Your task to perform on an android device: stop showing notifications on the lock screen Image 0: 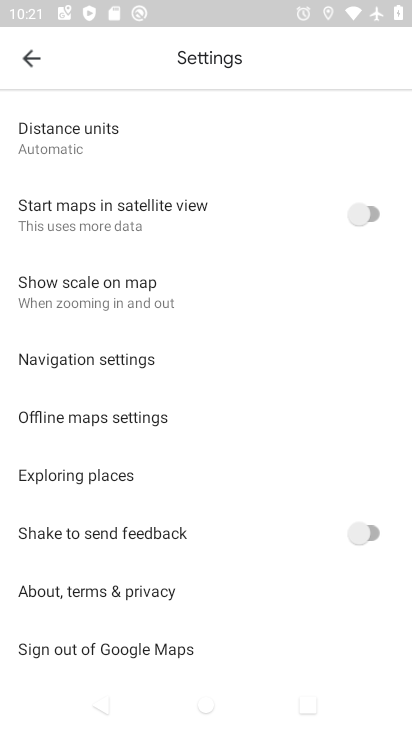
Step 0: press home button
Your task to perform on an android device: stop showing notifications on the lock screen Image 1: 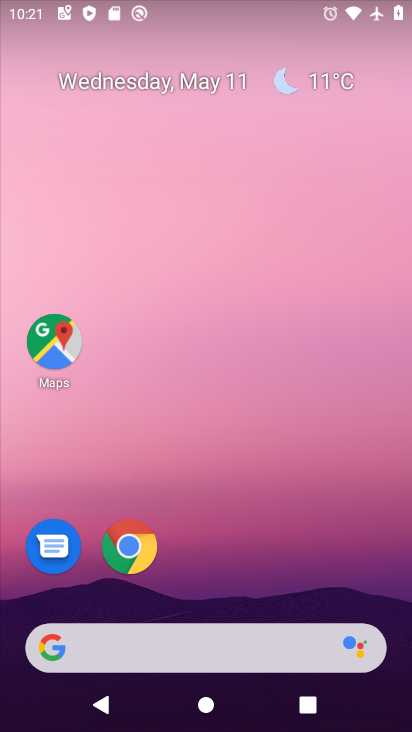
Step 1: drag from (397, 621) to (290, 122)
Your task to perform on an android device: stop showing notifications on the lock screen Image 2: 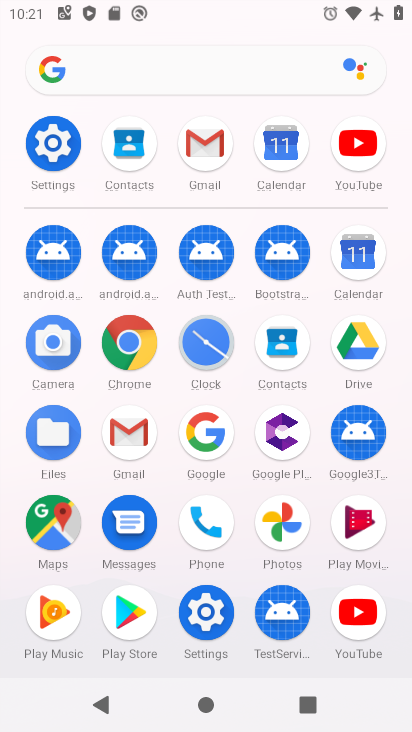
Step 2: click (208, 612)
Your task to perform on an android device: stop showing notifications on the lock screen Image 3: 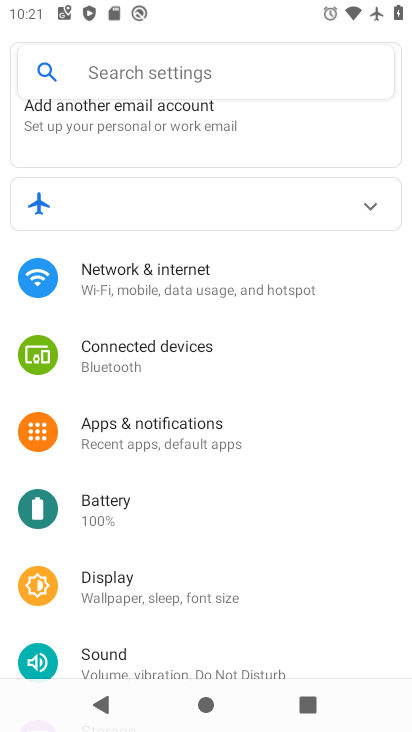
Step 3: click (146, 424)
Your task to perform on an android device: stop showing notifications on the lock screen Image 4: 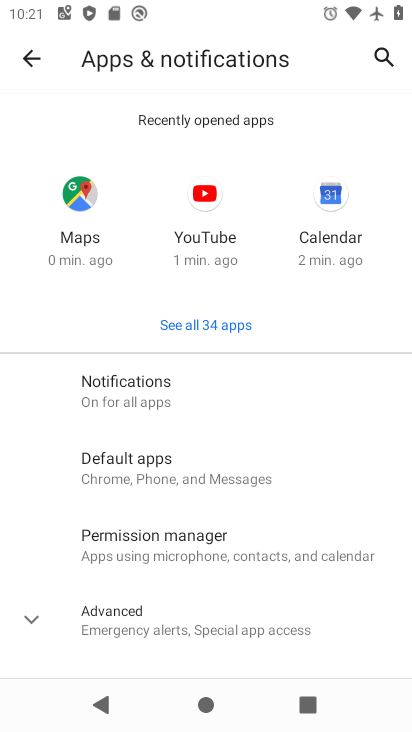
Step 4: click (125, 390)
Your task to perform on an android device: stop showing notifications on the lock screen Image 5: 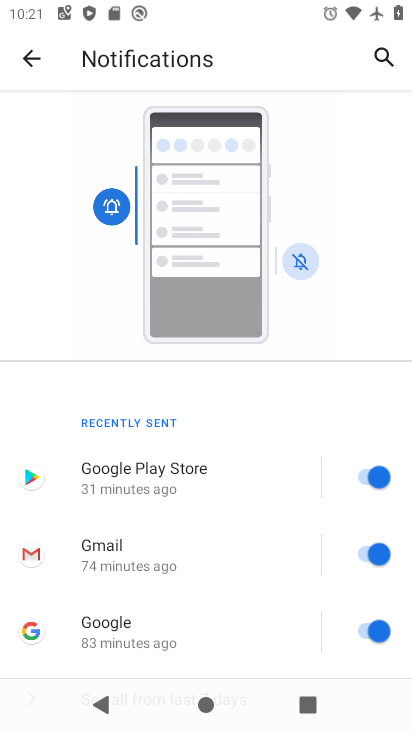
Step 5: drag from (286, 629) to (239, 185)
Your task to perform on an android device: stop showing notifications on the lock screen Image 6: 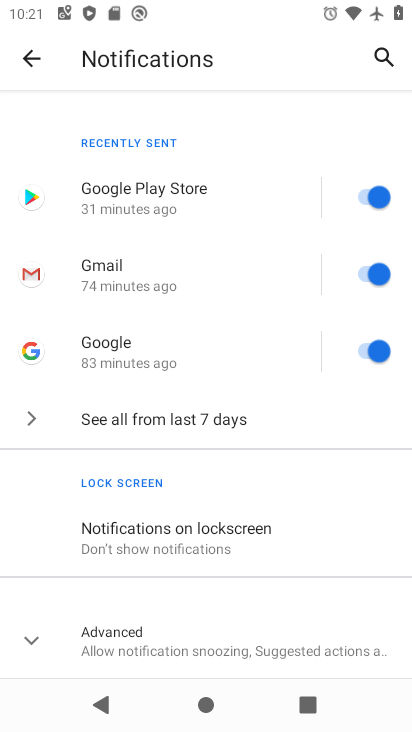
Step 6: click (133, 537)
Your task to perform on an android device: stop showing notifications on the lock screen Image 7: 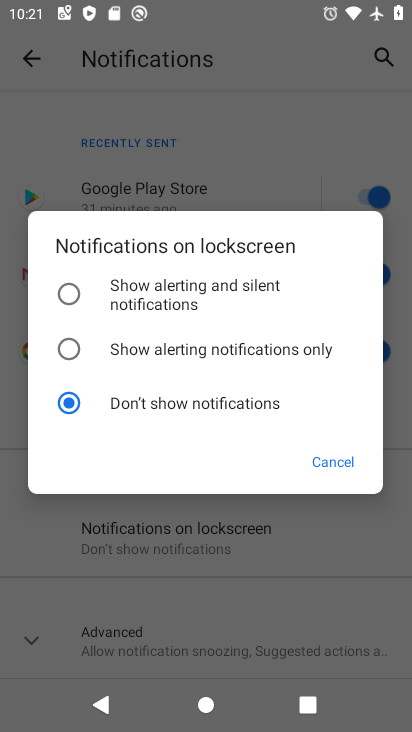
Step 7: task complete